Your task to perform on an android device: change alarm snooze length Image 0: 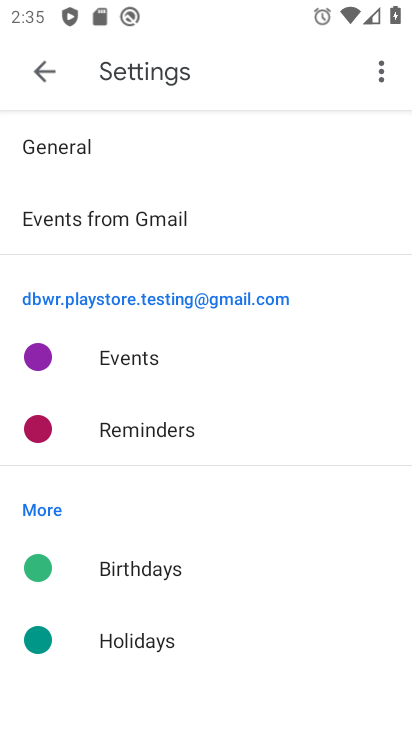
Step 0: press home button
Your task to perform on an android device: change alarm snooze length Image 1: 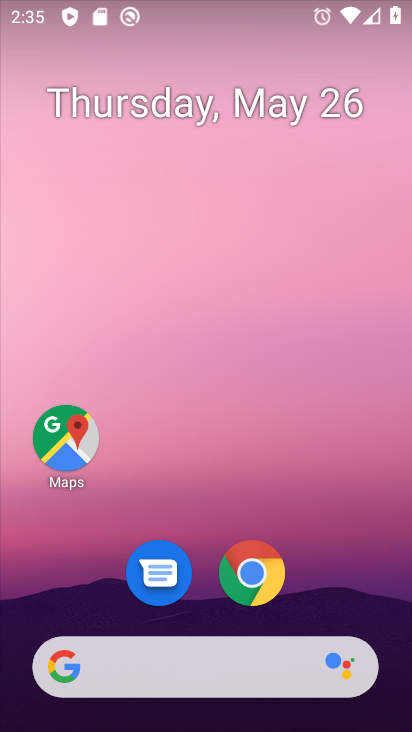
Step 1: drag from (342, 554) to (257, 151)
Your task to perform on an android device: change alarm snooze length Image 2: 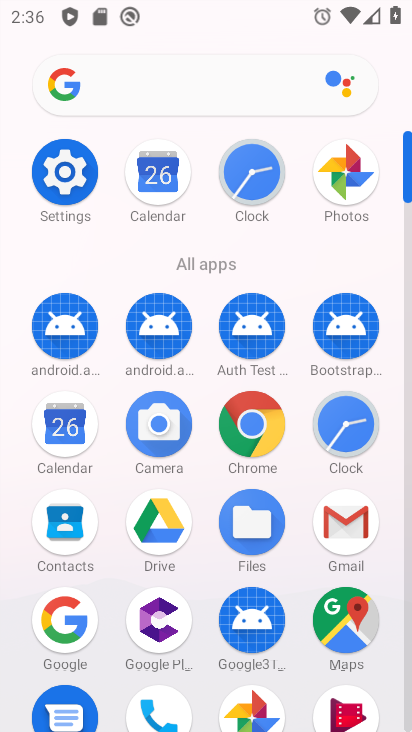
Step 2: click (253, 168)
Your task to perform on an android device: change alarm snooze length Image 3: 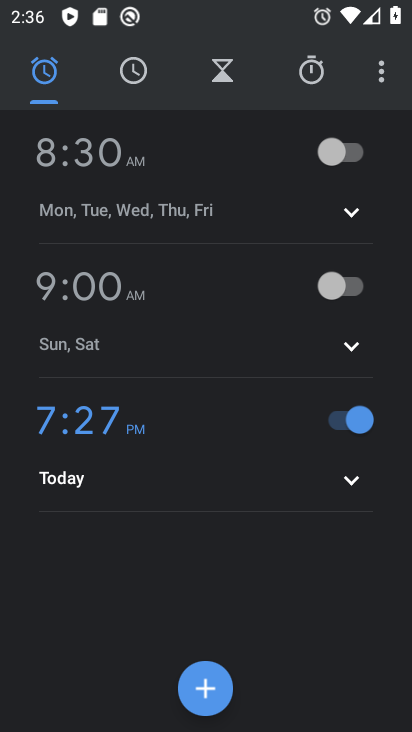
Step 3: click (383, 73)
Your task to perform on an android device: change alarm snooze length Image 4: 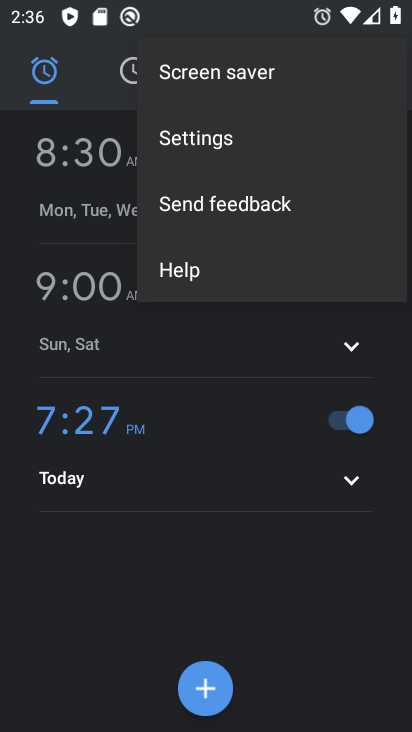
Step 4: click (188, 140)
Your task to perform on an android device: change alarm snooze length Image 5: 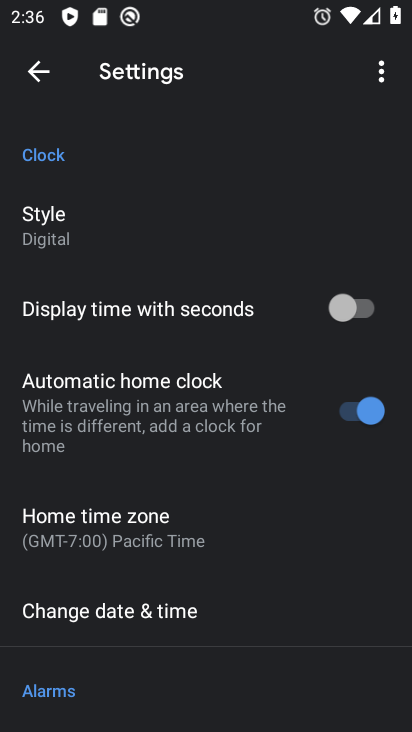
Step 5: drag from (148, 569) to (194, 463)
Your task to perform on an android device: change alarm snooze length Image 6: 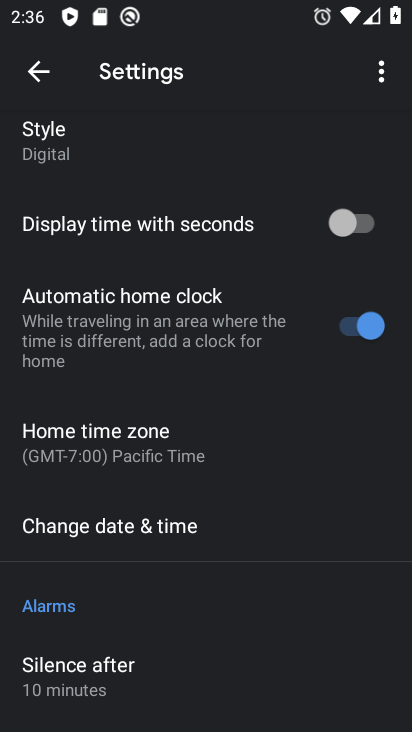
Step 6: drag from (138, 605) to (205, 504)
Your task to perform on an android device: change alarm snooze length Image 7: 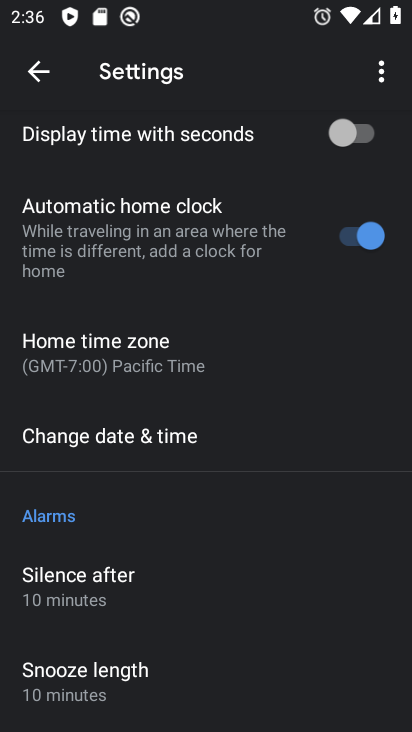
Step 7: drag from (185, 626) to (243, 507)
Your task to perform on an android device: change alarm snooze length Image 8: 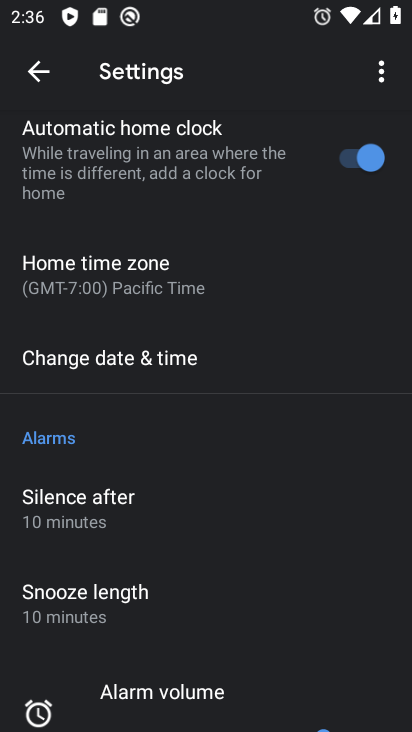
Step 8: click (123, 593)
Your task to perform on an android device: change alarm snooze length Image 9: 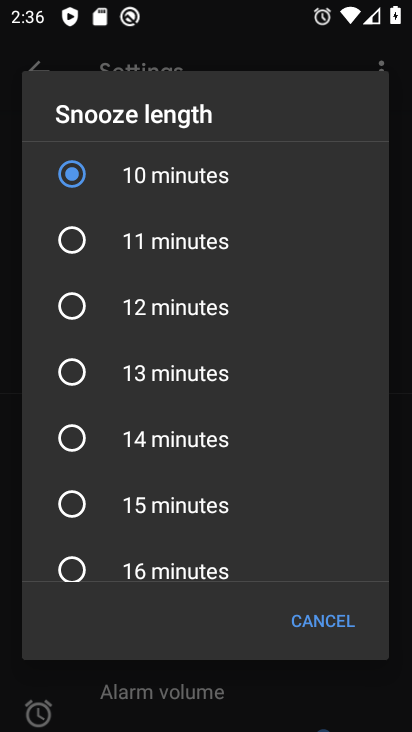
Step 9: drag from (178, 436) to (225, 340)
Your task to perform on an android device: change alarm snooze length Image 10: 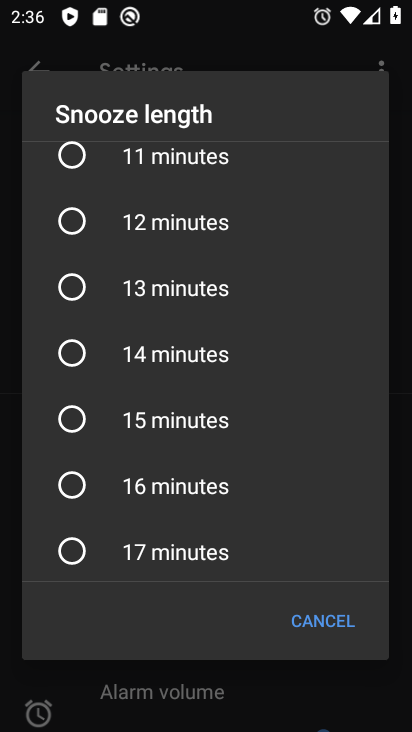
Step 10: drag from (174, 457) to (203, 372)
Your task to perform on an android device: change alarm snooze length Image 11: 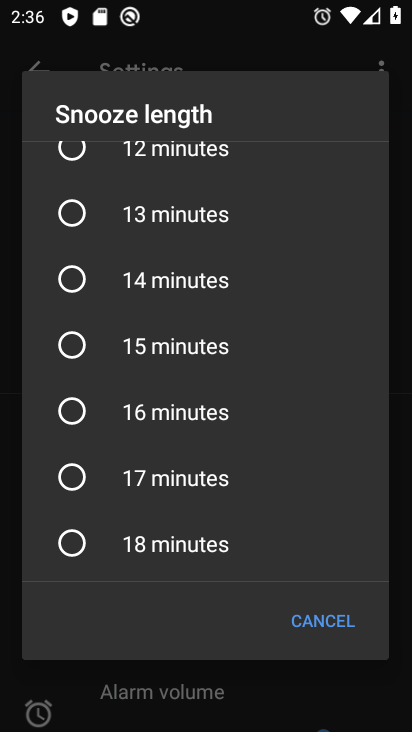
Step 11: drag from (178, 504) to (213, 412)
Your task to perform on an android device: change alarm snooze length Image 12: 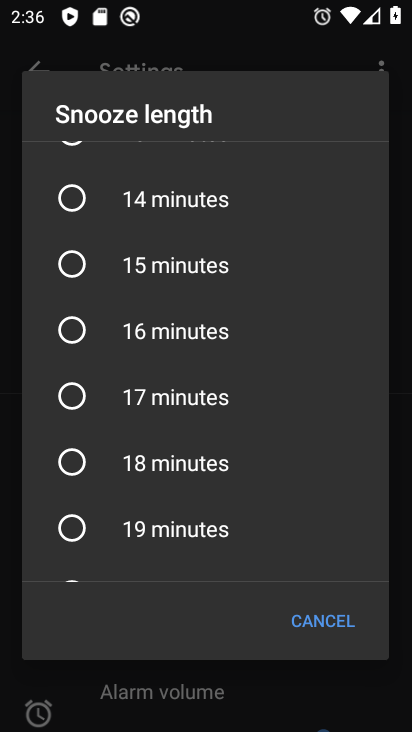
Step 12: drag from (167, 470) to (194, 374)
Your task to perform on an android device: change alarm snooze length Image 13: 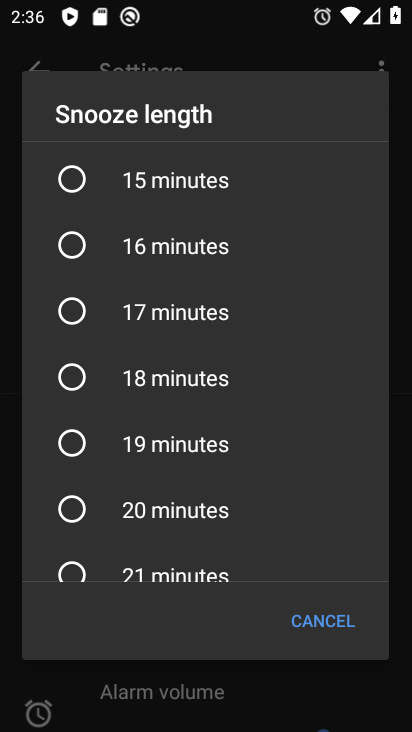
Step 13: click (82, 246)
Your task to perform on an android device: change alarm snooze length Image 14: 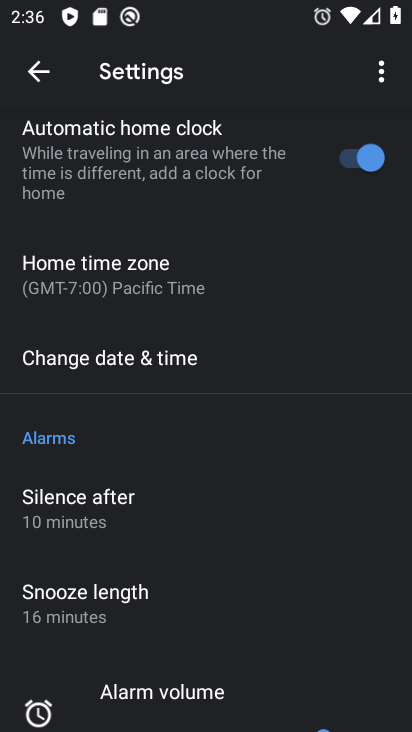
Step 14: task complete